Your task to perform on an android device: Open maps Image 0: 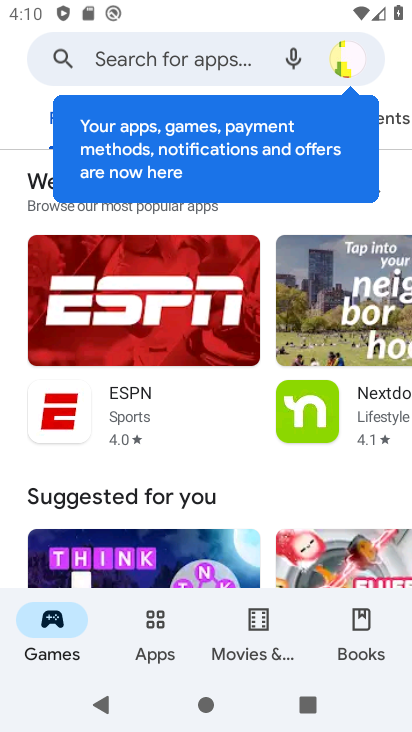
Step 0: press home button
Your task to perform on an android device: Open maps Image 1: 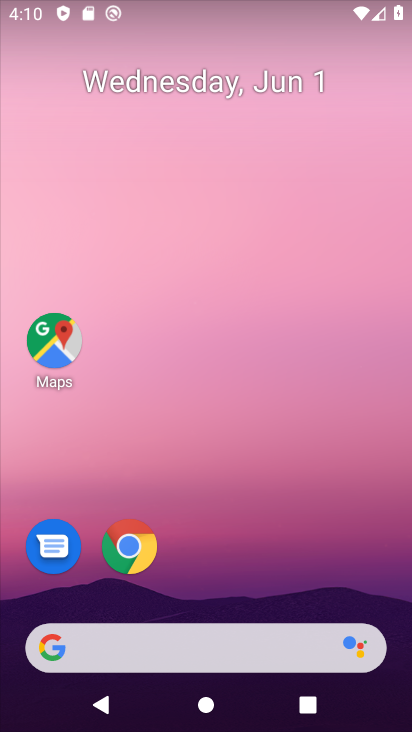
Step 1: click (47, 348)
Your task to perform on an android device: Open maps Image 2: 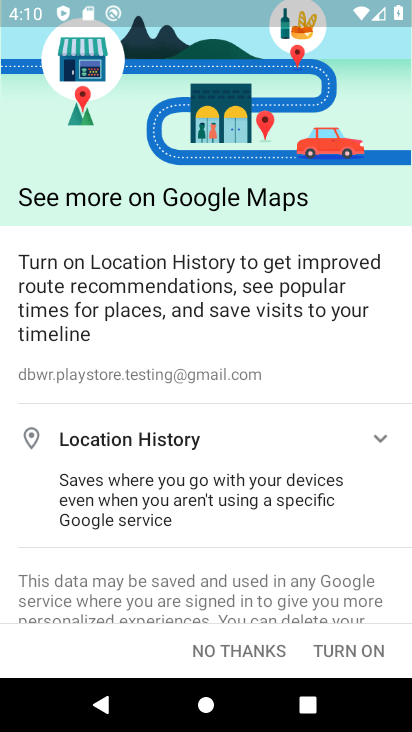
Step 2: task complete